Your task to perform on an android device: Open calendar and show me the first week of next month Image 0: 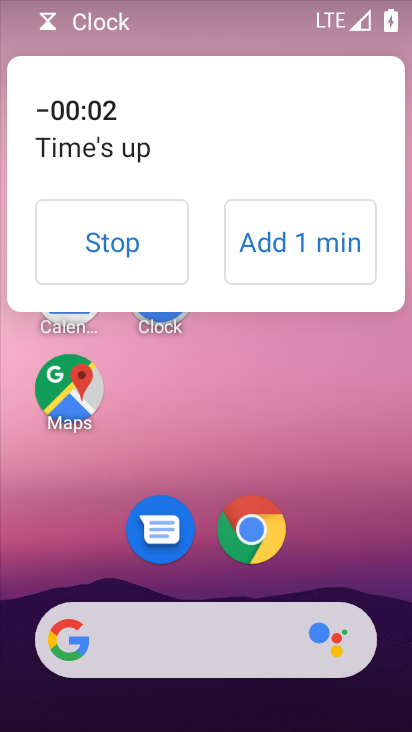
Step 0: click (69, 223)
Your task to perform on an android device: Open calendar and show me the first week of next month Image 1: 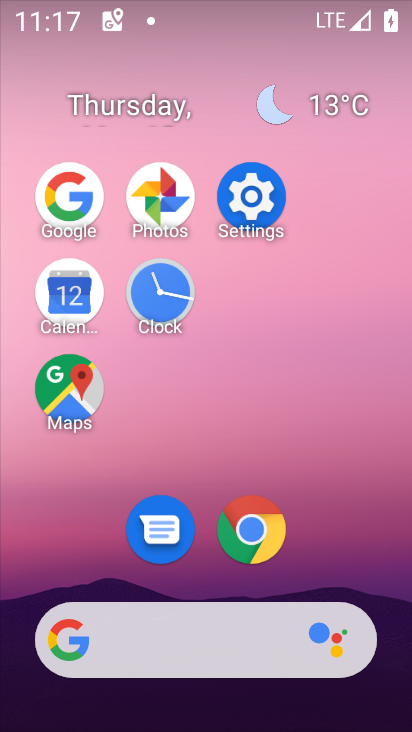
Step 1: click (68, 322)
Your task to perform on an android device: Open calendar and show me the first week of next month Image 2: 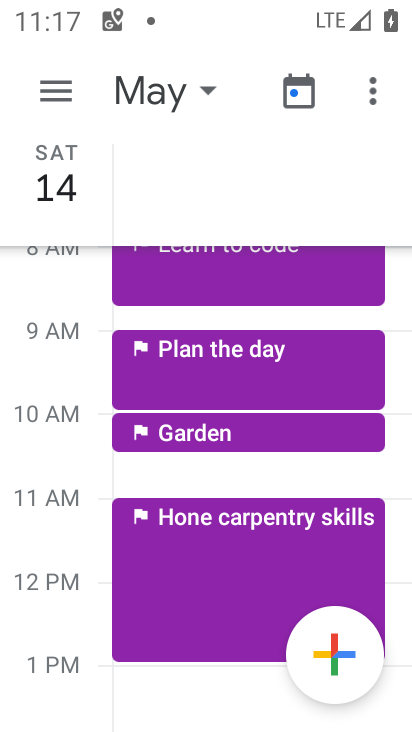
Step 2: click (190, 85)
Your task to perform on an android device: Open calendar and show me the first week of next month Image 3: 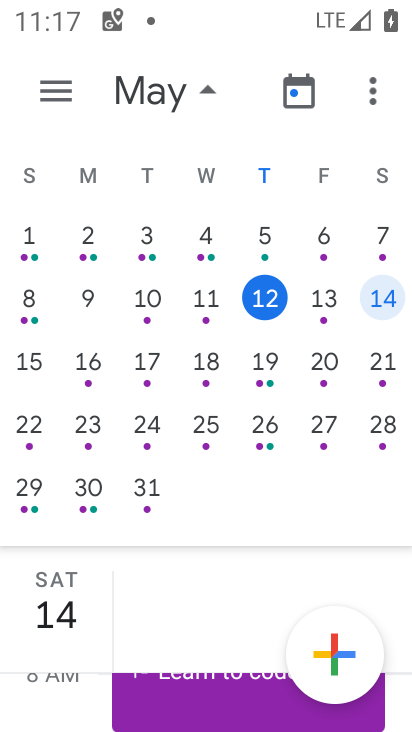
Step 3: drag from (396, 337) to (15, 337)
Your task to perform on an android device: Open calendar and show me the first week of next month Image 4: 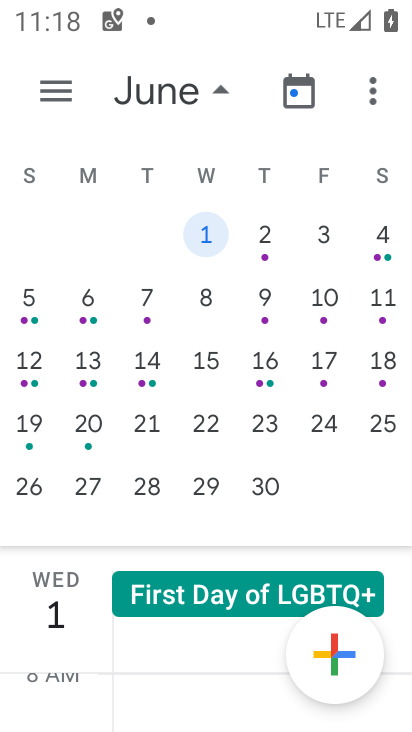
Step 4: click (64, 70)
Your task to perform on an android device: Open calendar and show me the first week of next month Image 5: 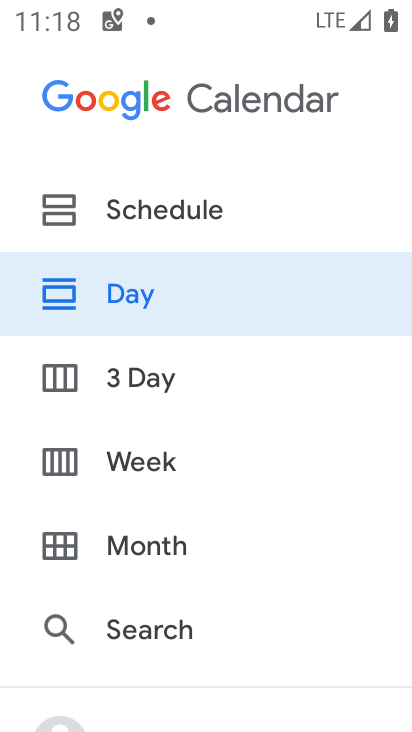
Step 5: click (188, 476)
Your task to perform on an android device: Open calendar and show me the first week of next month Image 6: 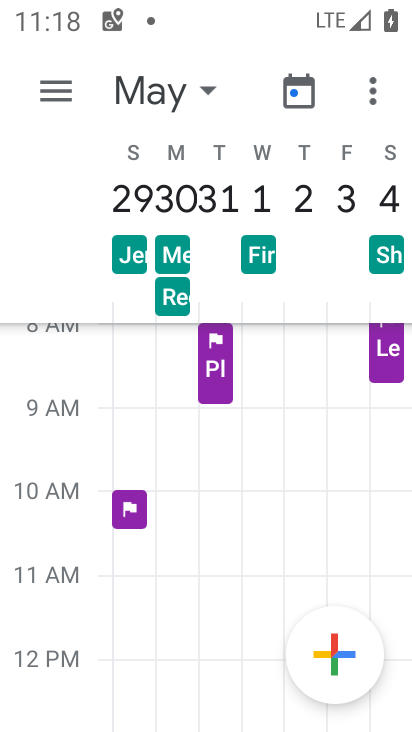
Step 6: task complete